Your task to perform on an android device: turn off notifications in google photos Image 0: 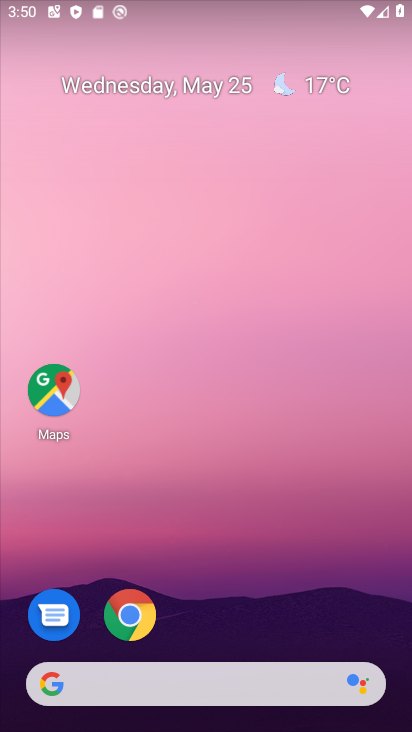
Step 0: drag from (269, 628) to (297, 8)
Your task to perform on an android device: turn off notifications in google photos Image 1: 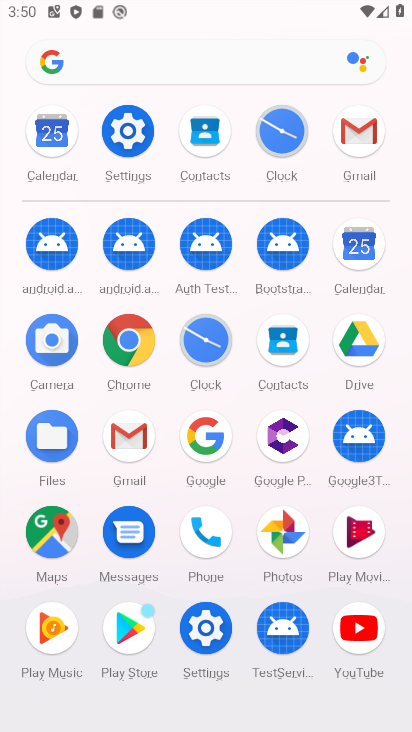
Step 1: click (275, 533)
Your task to perform on an android device: turn off notifications in google photos Image 2: 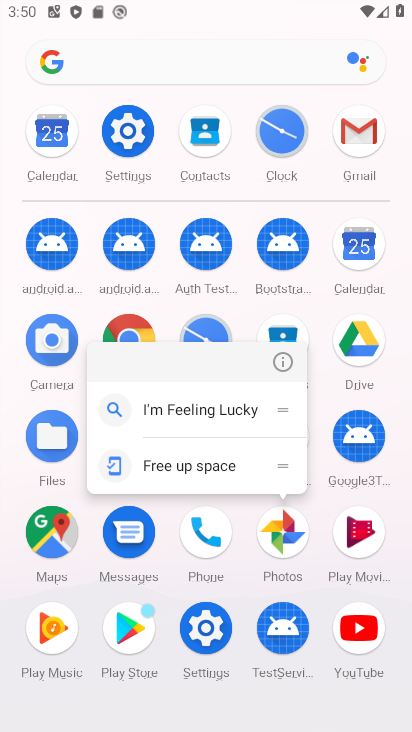
Step 2: click (287, 361)
Your task to perform on an android device: turn off notifications in google photos Image 3: 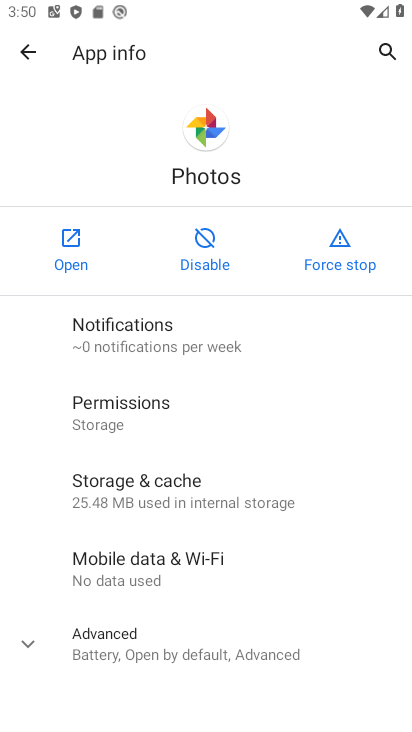
Step 3: click (106, 330)
Your task to perform on an android device: turn off notifications in google photos Image 4: 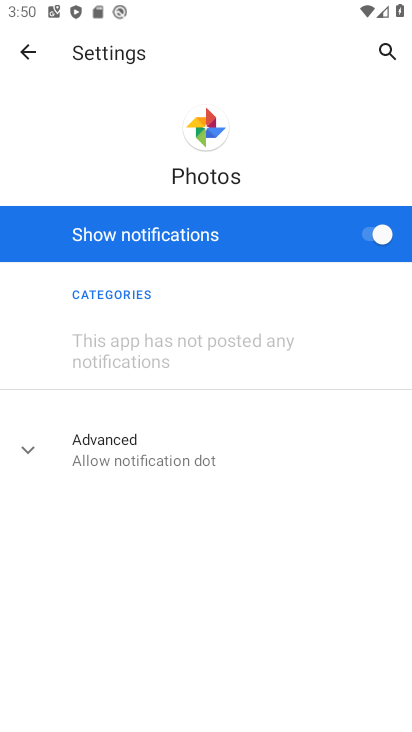
Step 4: click (378, 238)
Your task to perform on an android device: turn off notifications in google photos Image 5: 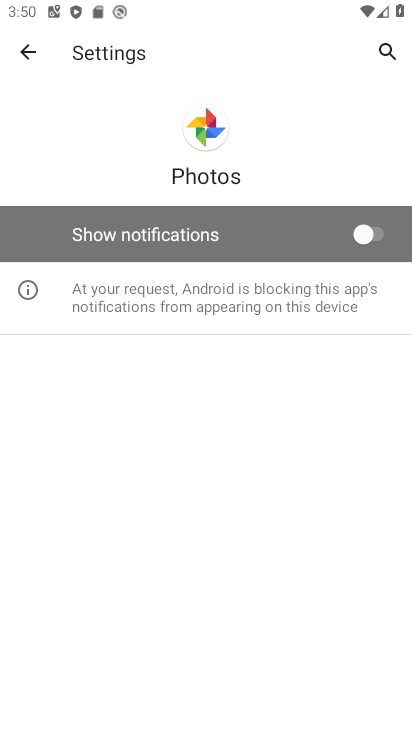
Step 5: task complete